Your task to perform on an android device: delete location history Image 0: 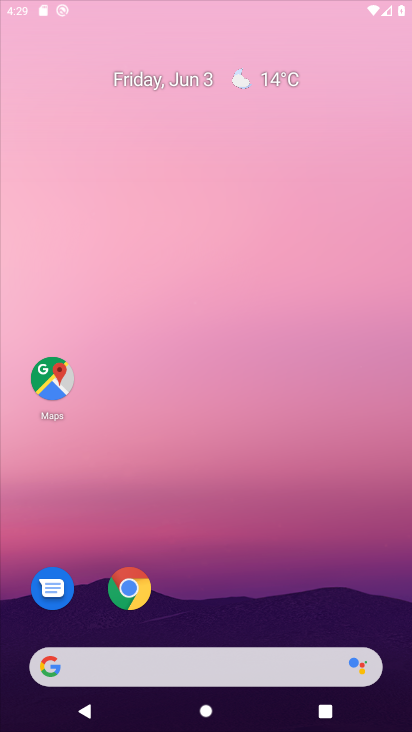
Step 0: drag from (223, 174) to (201, 10)
Your task to perform on an android device: delete location history Image 1: 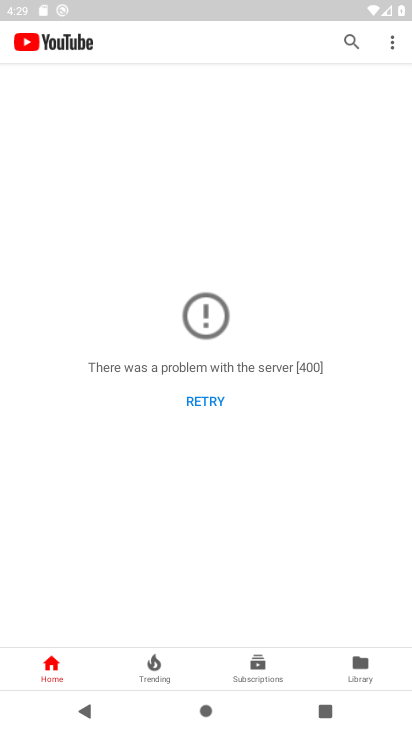
Step 1: press back button
Your task to perform on an android device: delete location history Image 2: 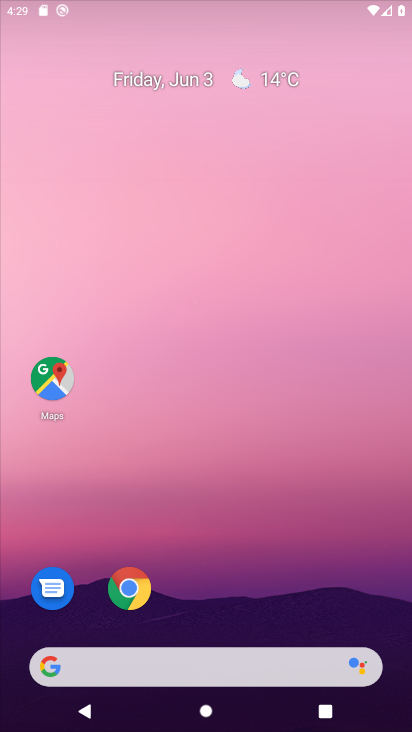
Step 2: press back button
Your task to perform on an android device: delete location history Image 3: 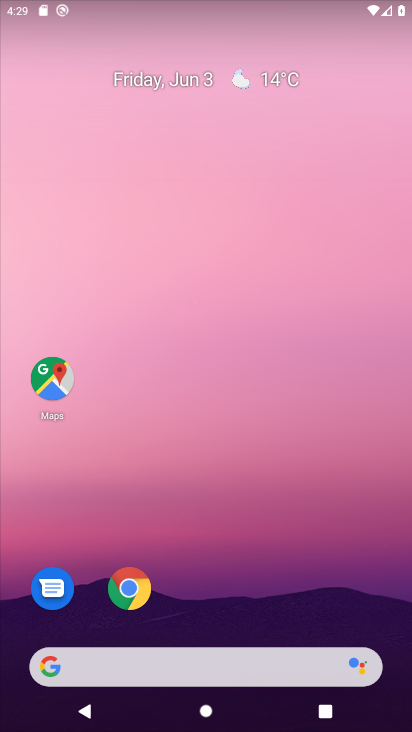
Step 3: drag from (208, 553) to (208, 23)
Your task to perform on an android device: delete location history Image 4: 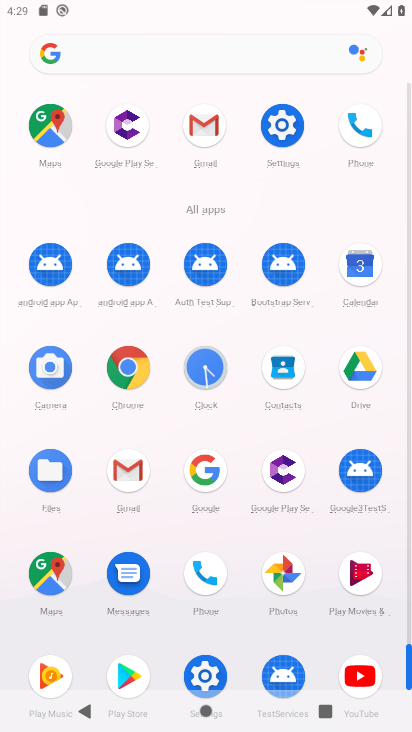
Step 4: drag from (8, 557) to (4, 211)
Your task to perform on an android device: delete location history Image 5: 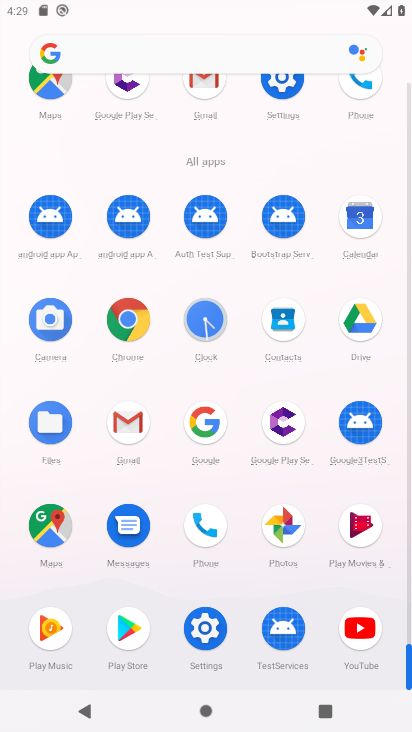
Step 5: click (200, 625)
Your task to perform on an android device: delete location history Image 6: 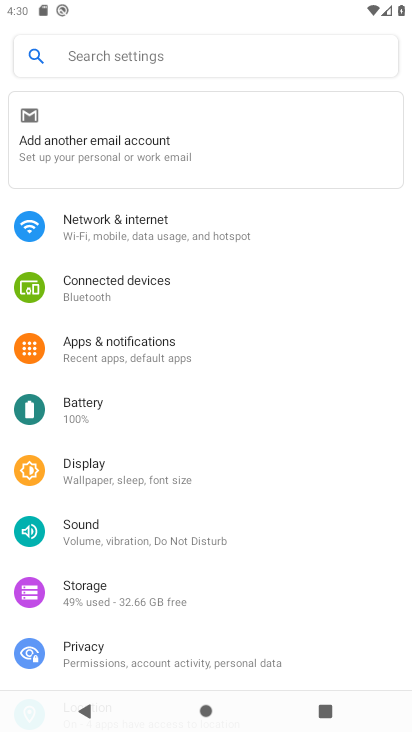
Step 6: drag from (222, 612) to (239, 175)
Your task to perform on an android device: delete location history Image 7: 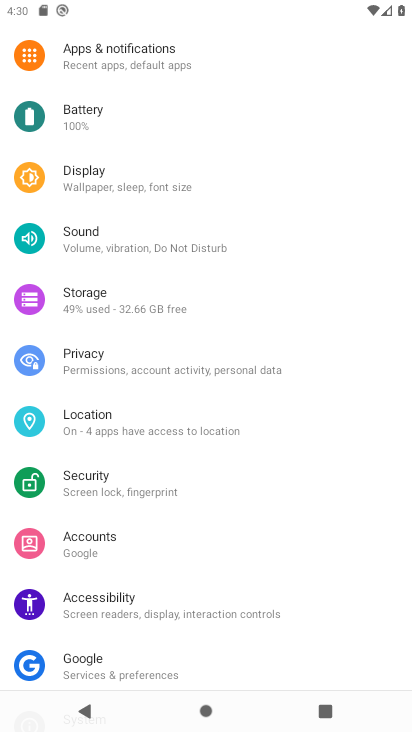
Step 7: click (105, 414)
Your task to perform on an android device: delete location history Image 8: 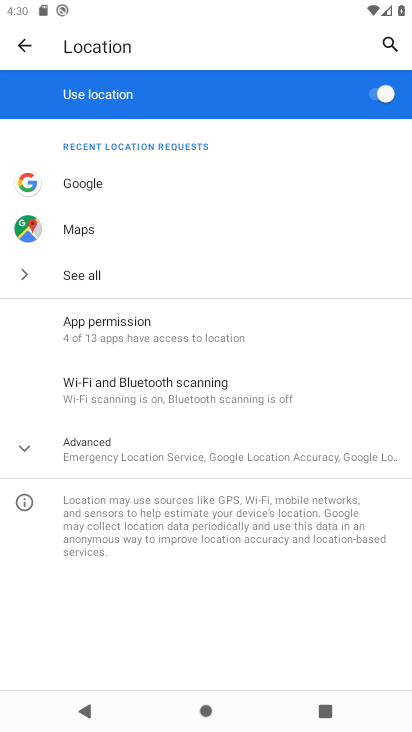
Step 8: click (39, 440)
Your task to perform on an android device: delete location history Image 9: 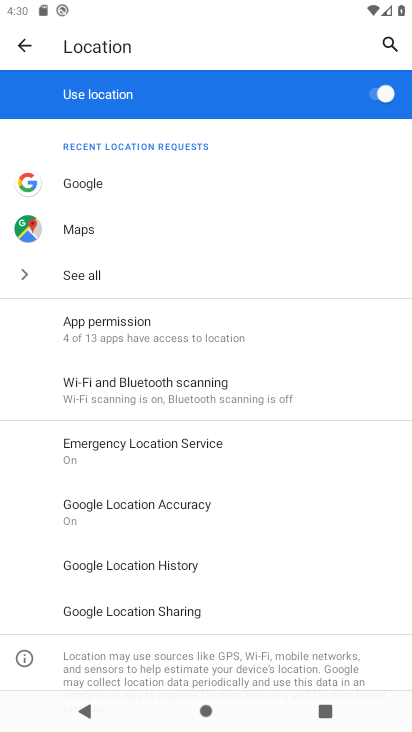
Step 9: click (160, 562)
Your task to perform on an android device: delete location history Image 10: 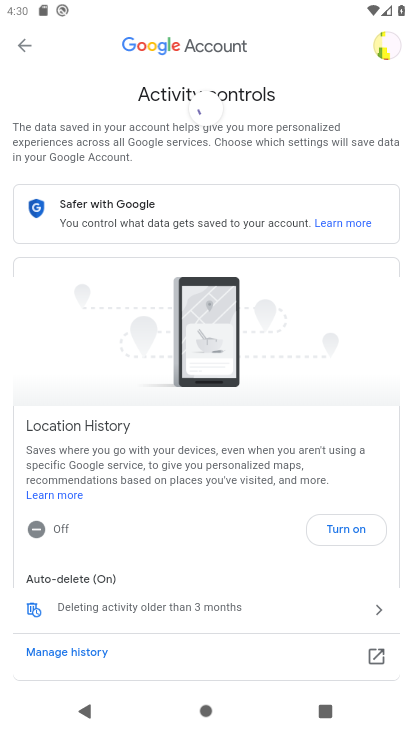
Step 10: drag from (195, 461) to (189, 213)
Your task to perform on an android device: delete location history Image 11: 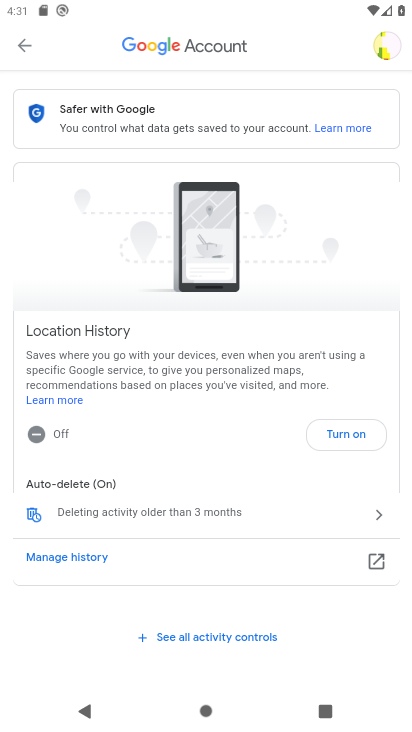
Step 11: click (108, 510)
Your task to perform on an android device: delete location history Image 12: 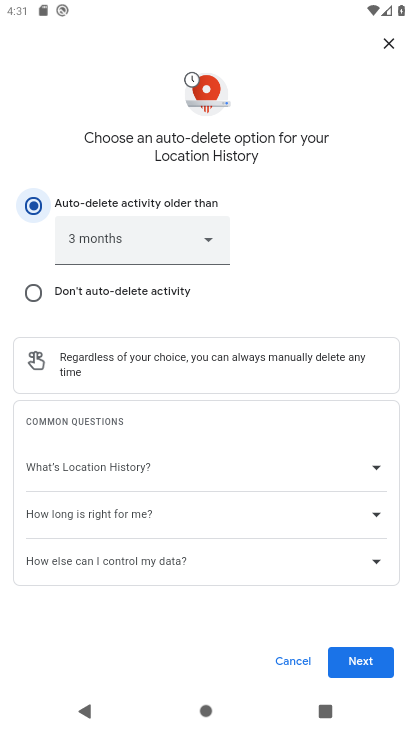
Step 12: click (367, 656)
Your task to perform on an android device: delete location history Image 13: 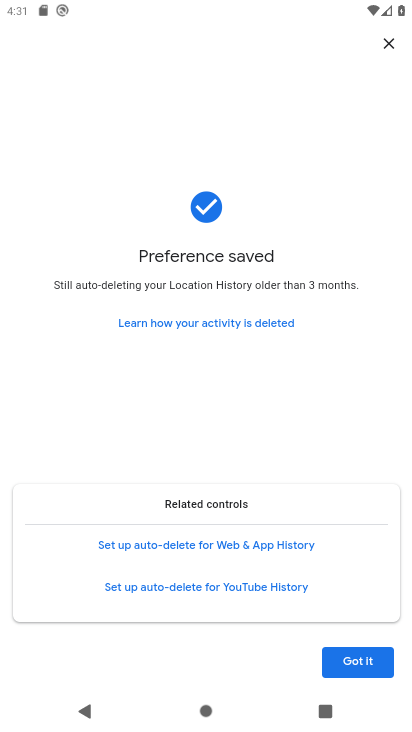
Step 13: task complete